Your task to perform on an android device: find photos in the google photos app Image 0: 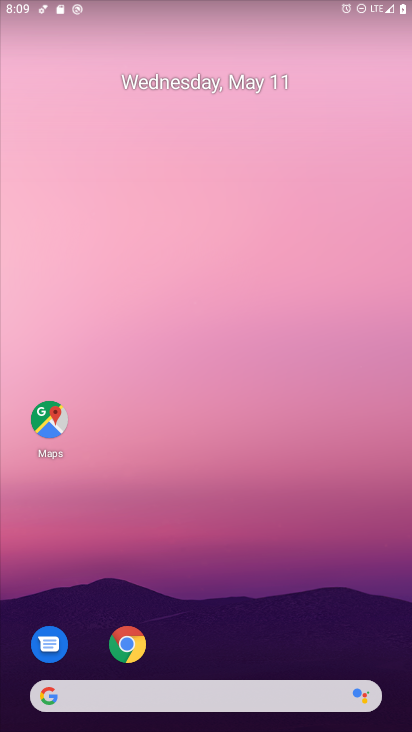
Step 0: drag from (281, 616) to (258, 80)
Your task to perform on an android device: find photos in the google photos app Image 1: 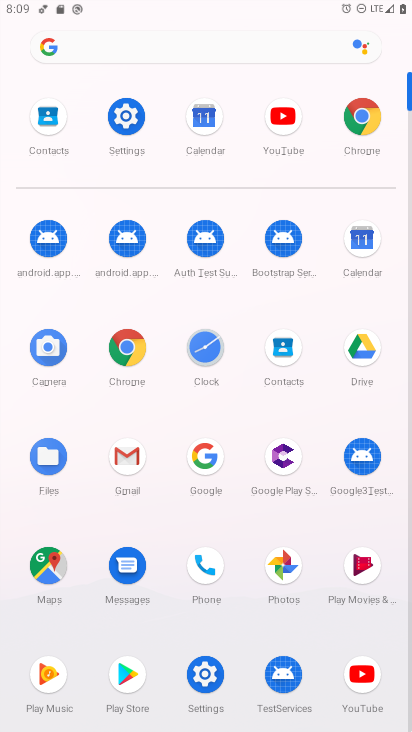
Step 1: click (271, 563)
Your task to perform on an android device: find photos in the google photos app Image 2: 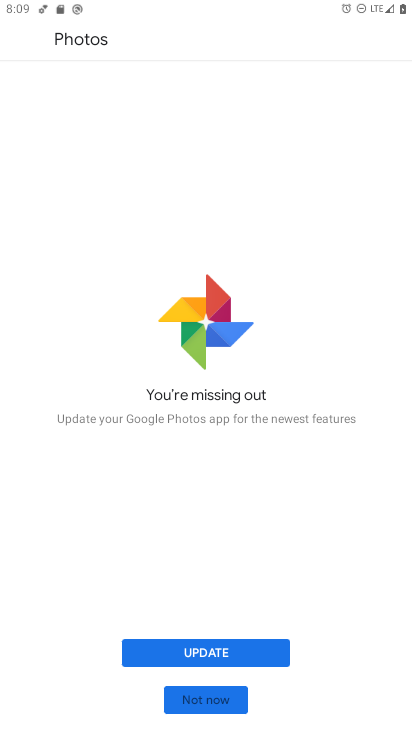
Step 2: click (205, 649)
Your task to perform on an android device: find photos in the google photos app Image 3: 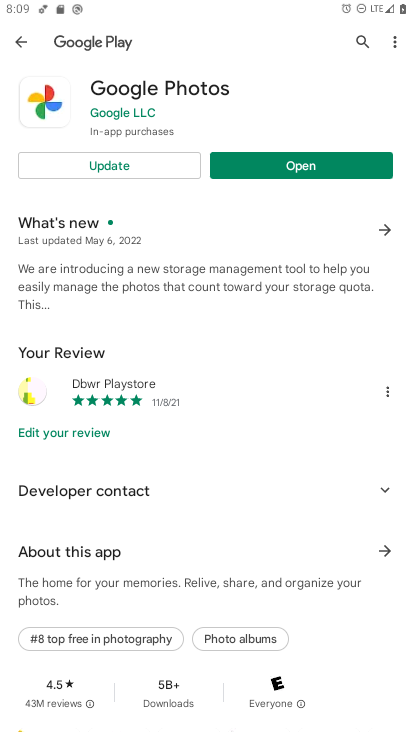
Step 3: click (103, 161)
Your task to perform on an android device: find photos in the google photos app Image 4: 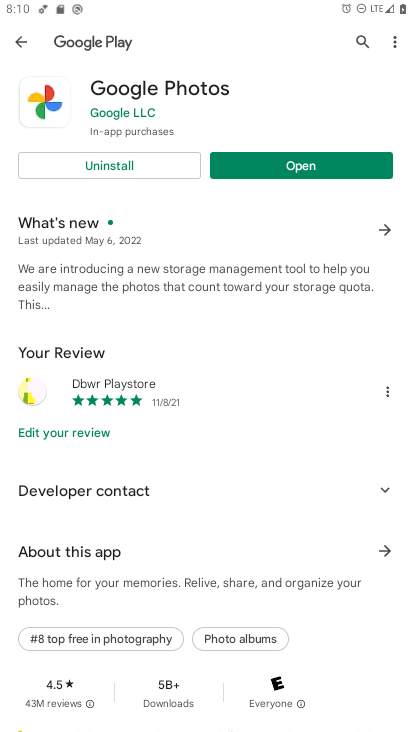
Step 4: click (246, 178)
Your task to perform on an android device: find photos in the google photos app Image 5: 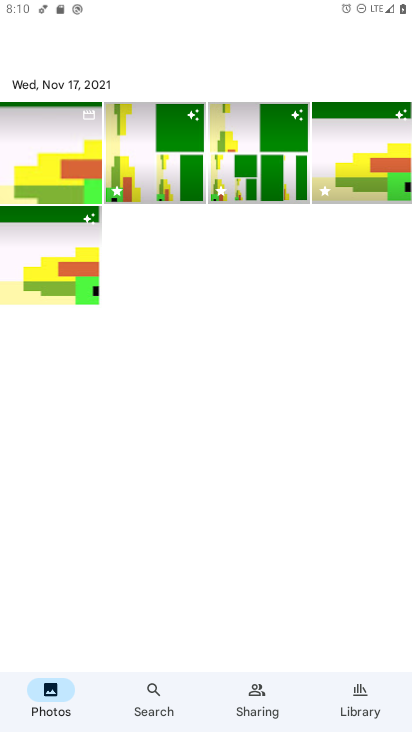
Step 5: click (284, 172)
Your task to perform on an android device: find photos in the google photos app Image 6: 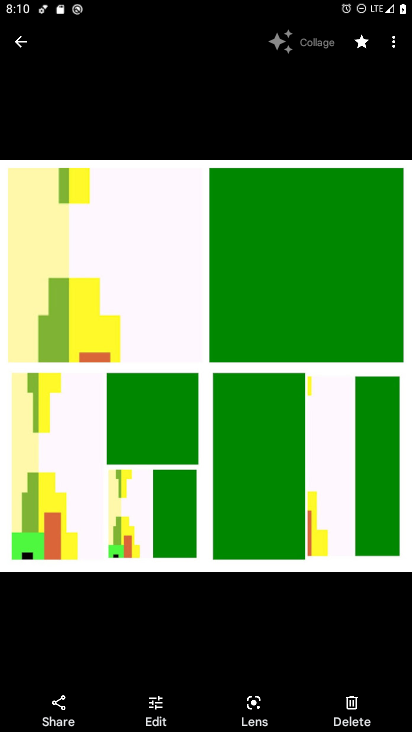
Step 6: click (20, 35)
Your task to perform on an android device: find photos in the google photos app Image 7: 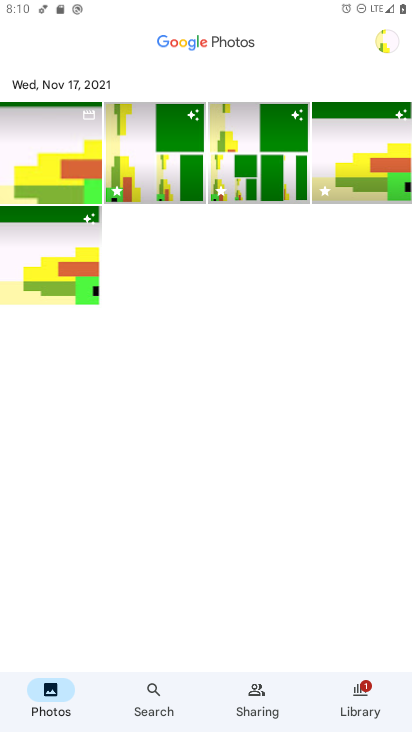
Step 7: task complete